Your task to perform on an android device: toggle sleep mode Image 0: 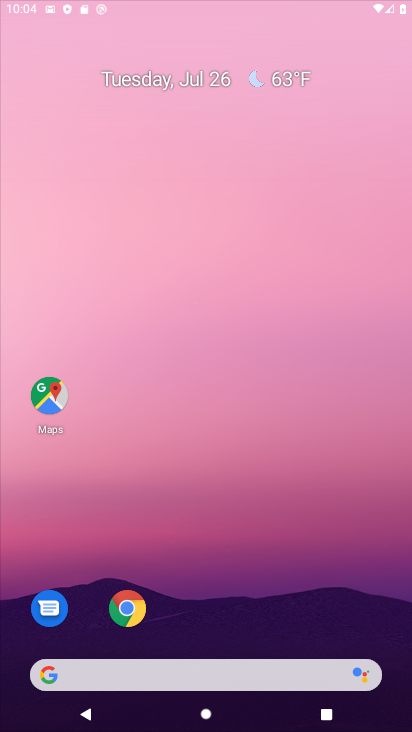
Step 0: press home button
Your task to perform on an android device: toggle sleep mode Image 1: 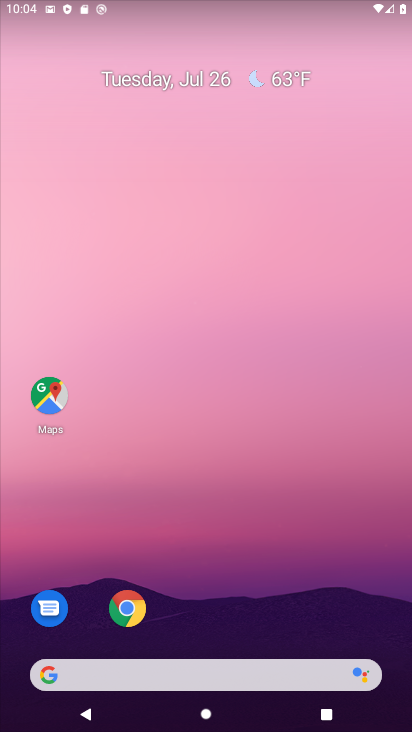
Step 1: drag from (283, 589) to (291, 190)
Your task to perform on an android device: toggle sleep mode Image 2: 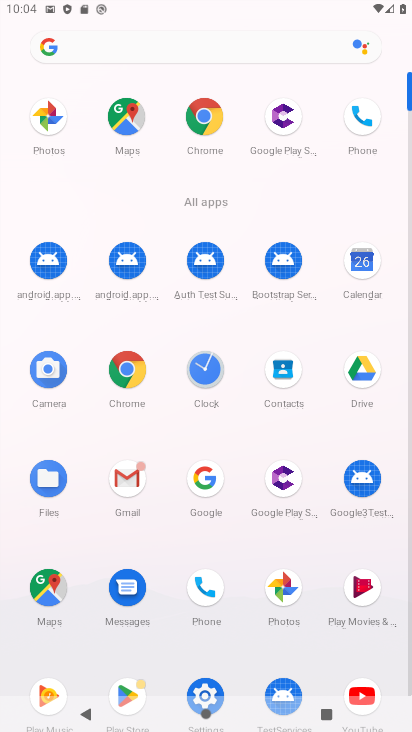
Step 2: click (207, 686)
Your task to perform on an android device: toggle sleep mode Image 3: 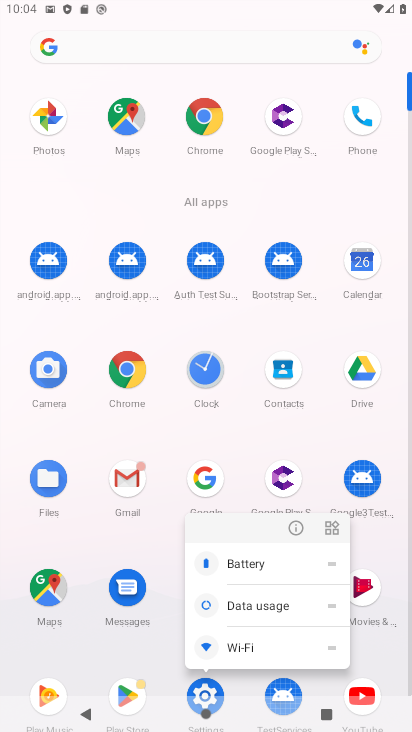
Step 3: click (207, 686)
Your task to perform on an android device: toggle sleep mode Image 4: 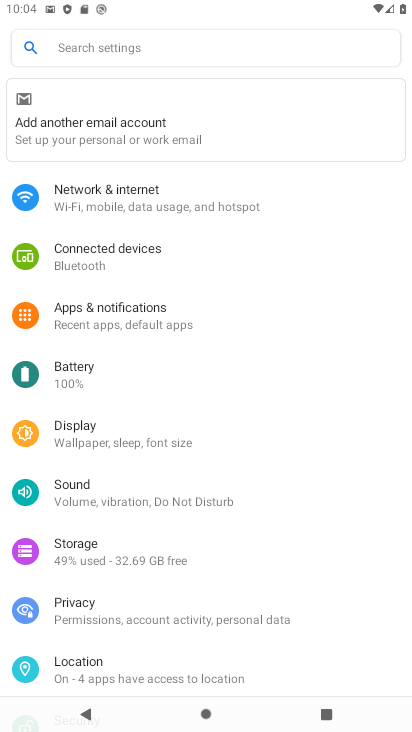
Step 4: click (151, 440)
Your task to perform on an android device: toggle sleep mode Image 5: 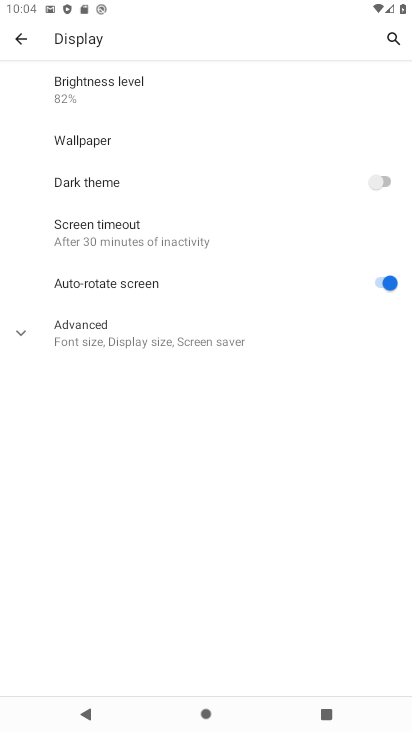
Step 5: click (16, 331)
Your task to perform on an android device: toggle sleep mode Image 6: 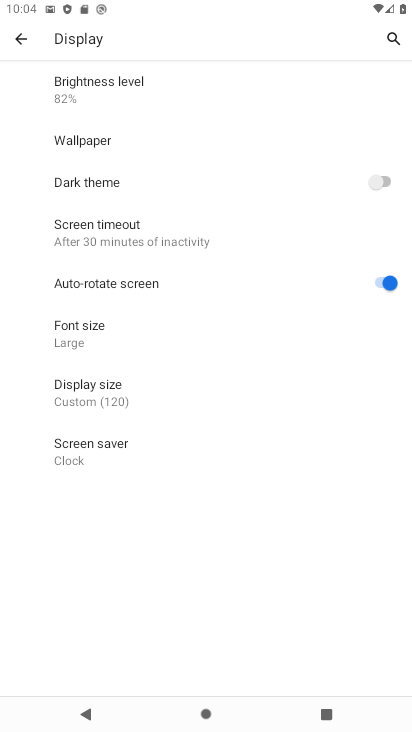
Step 6: task complete